Your task to perform on an android device: Open calendar and show me the second week of next month Image 0: 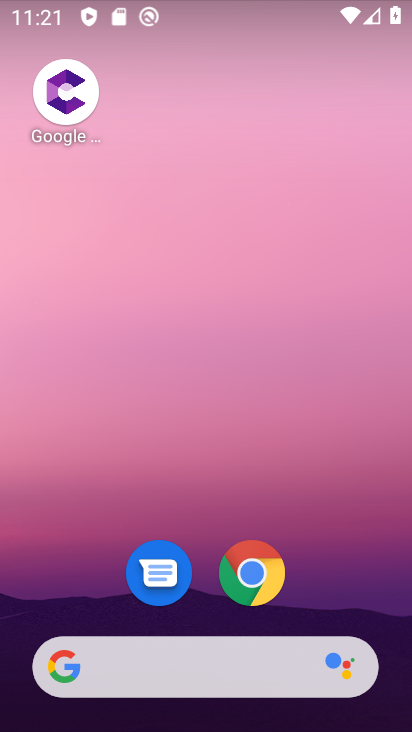
Step 0: drag from (378, 612) to (324, 78)
Your task to perform on an android device: Open calendar and show me the second week of next month Image 1: 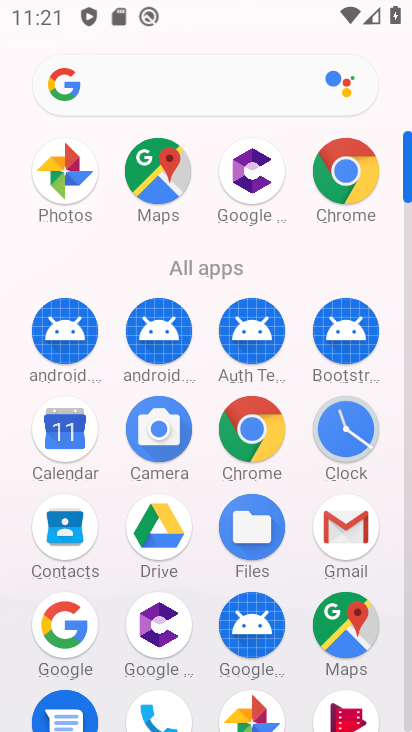
Step 1: click (72, 434)
Your task to perform on an android device: Open calendar and show me the second week of next month Image 2: 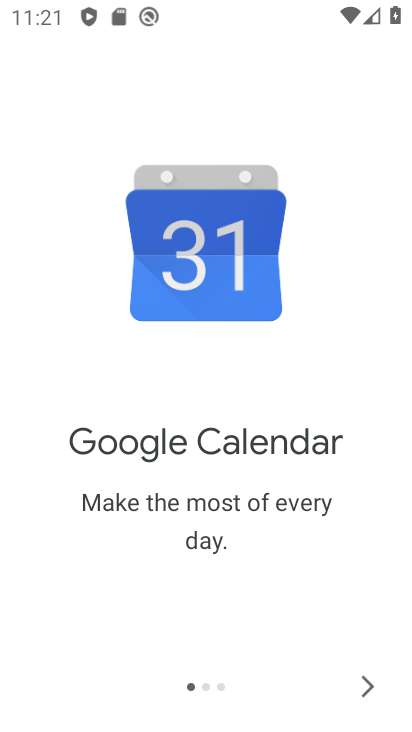
Step 2: click (374, 690)
Your task to perform on an android device: Open calendar and show me the second week of next month Image 3: 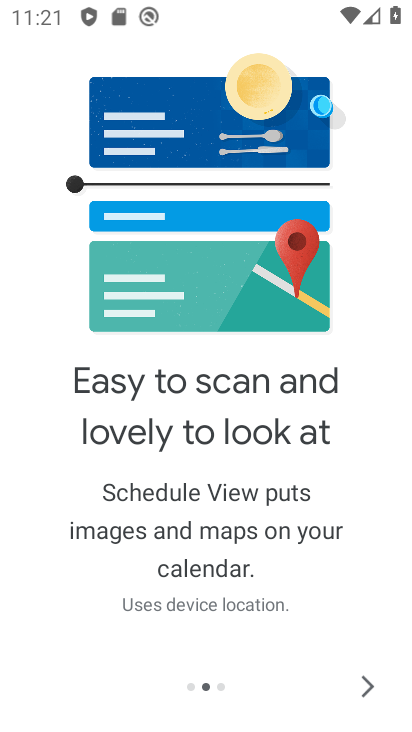
Step 3: click (374, 690)
Your task to perform on an android device: Open calendar and show me the second week of next month Image 4: 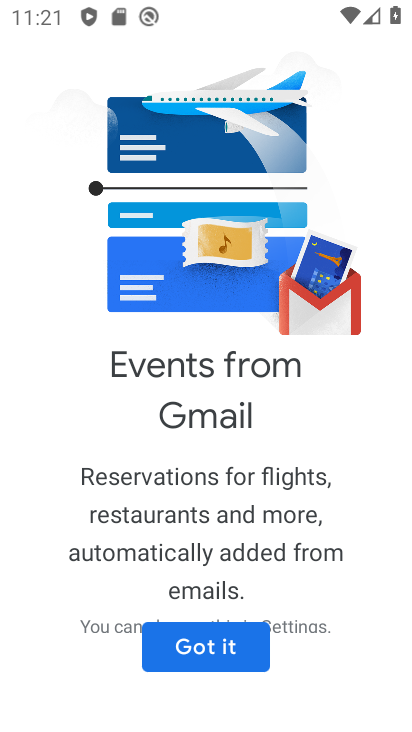
Step 4: click (240, 665)
Your task to perform on an android device: Open calendar and show me the second week of next month Image 5: 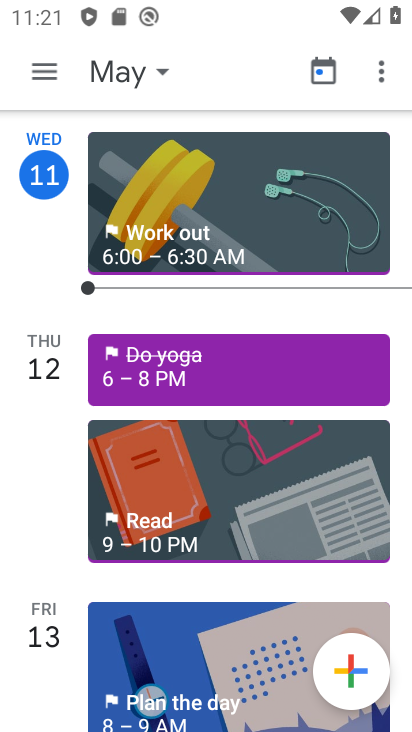
Step 5: click (148, 76)
Your task to perform on an android device: Open calendar and show me the second week of next month Image 6: 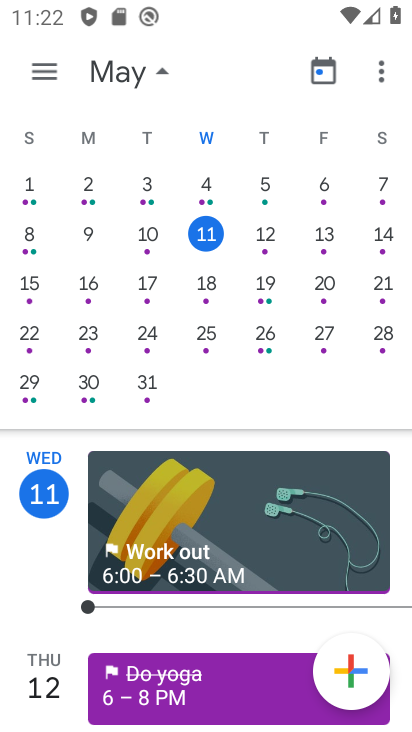
Step 6: drag from (323, 319) to (29, 283)
Your task to perform on an android device: Open calendar and show me the second week of next month Image 7: 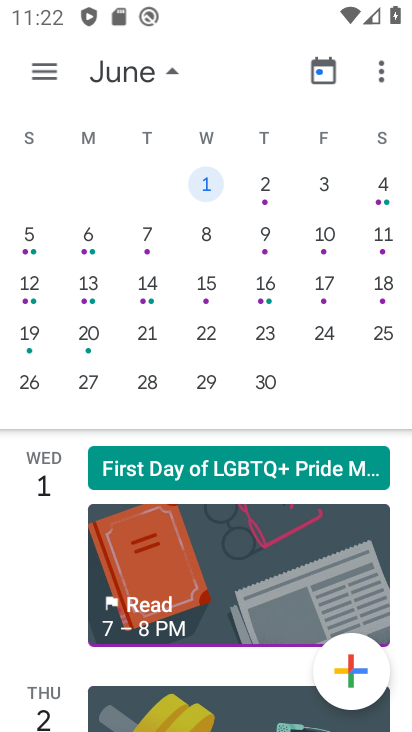
Step 7: click (89, 284)
Your task to perform on an android device: Open calendar and show me the second week of next month Image 8: 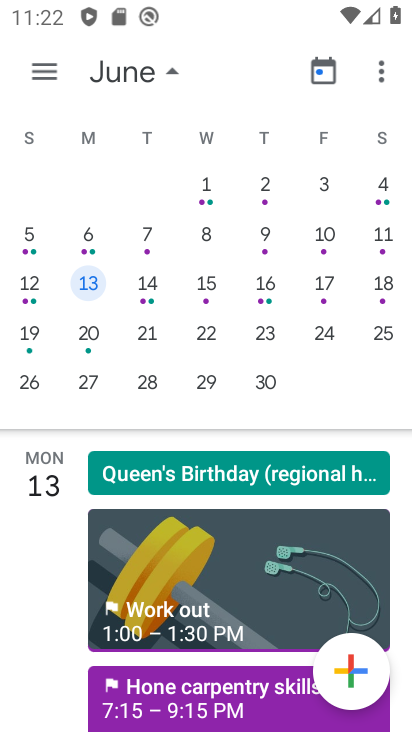
Step 8: click (46, 62)
Your task to perform on an android device: Open calendar and show me the second week of next month Image 9: 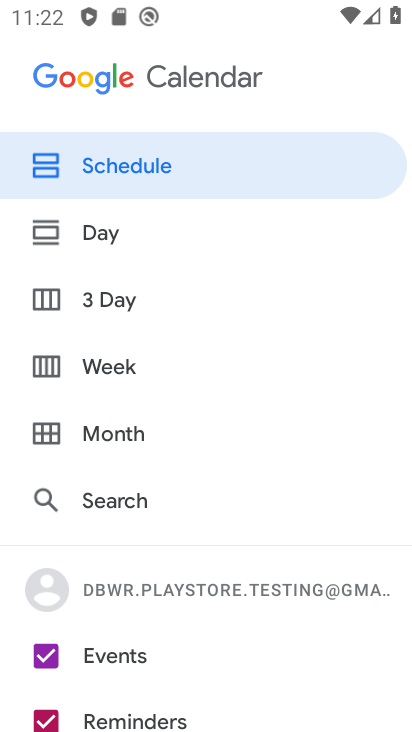
Step 9: click (127, 360)
Your task to perform on an android device: Open calendar and show me the second week of next month Image 10: 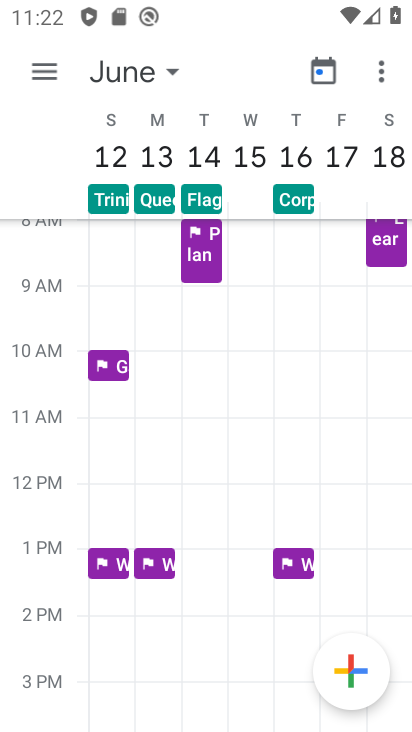
Step 10: task complete